Your task to perform on an android device: open a bookmark in the chrome app Image 0: 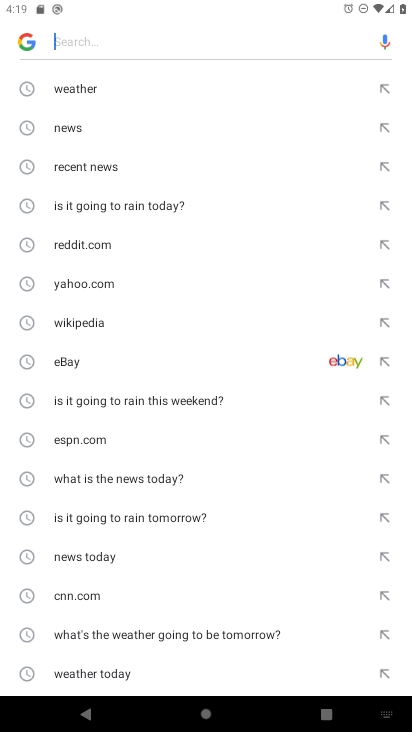
Step 0: press back button
Your task to perform on an android device: open a bookmark in the chrome app Image 1: 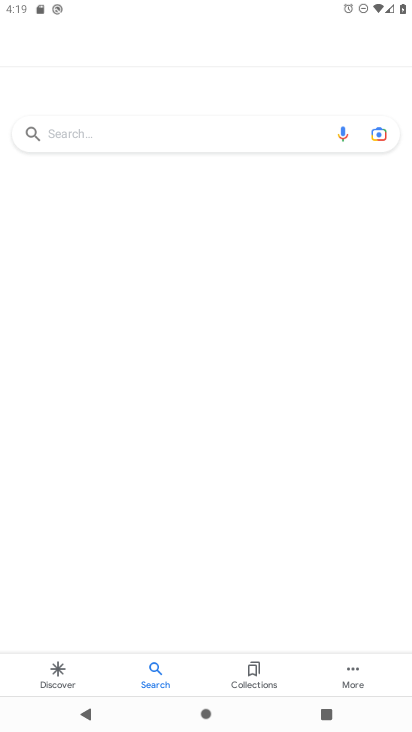
Step 1: press back button
Your task to perform on an android device: open a bookmark in the chrome app Image 2: 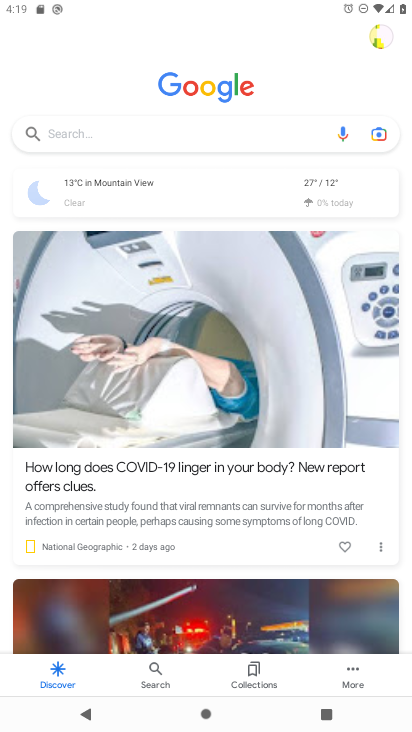
Step 2: press back button
Your task to perform on an android device: open a bookmark in the chrome app Image 3: 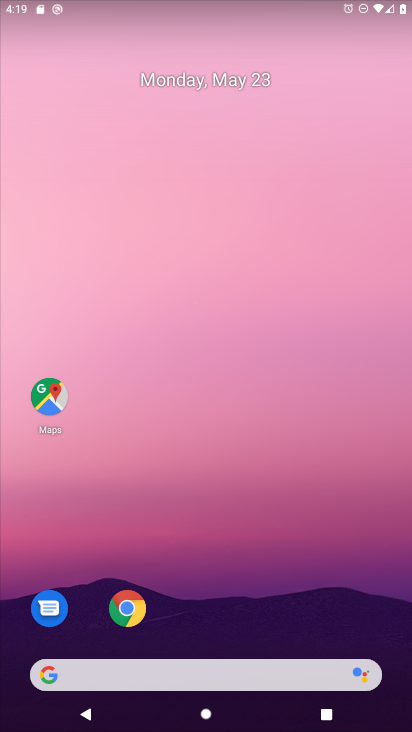
Step 3: drag from (242, 568) to (166, 107)
Your task to perform on an android device: open a bookmark in the chrome app Image 4: 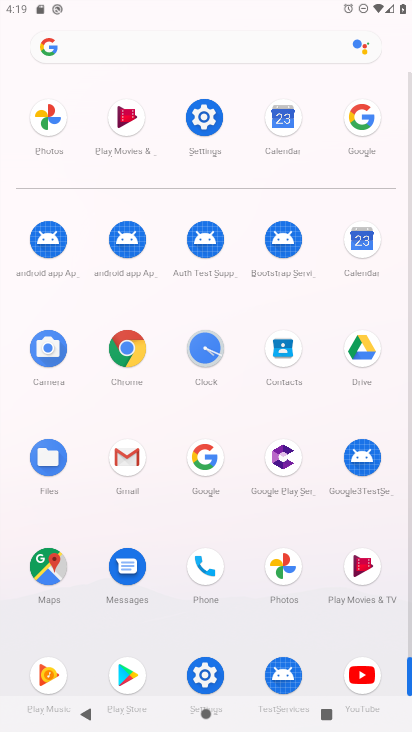
Step 4: click (129, 347)
Your task to perform on an android device: open a bookmark in the chrome app Image 5: 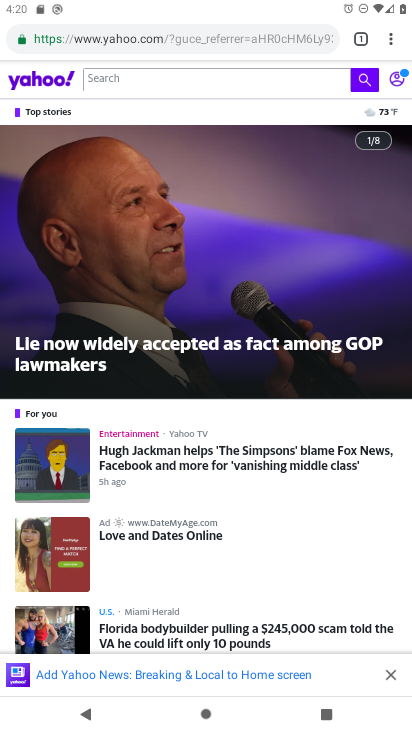
Step 5: click (391, 36)
Your task to perform on an android device: open a bookmark in the chrome app Image 6: 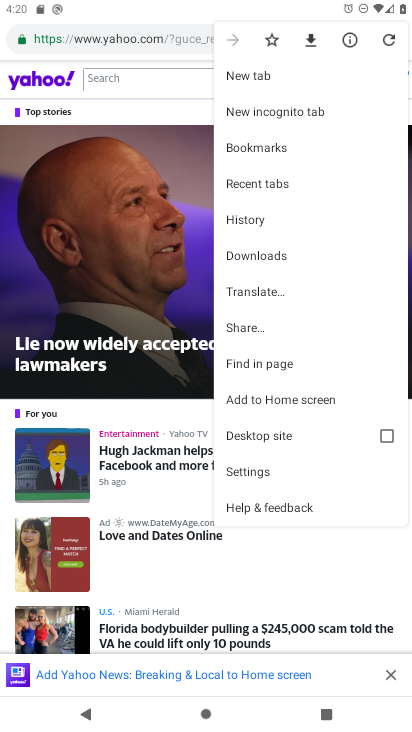
Step 6: click (276, 149)
Your task to perform on an android device: open a bookmark in the chrome app Image 7: 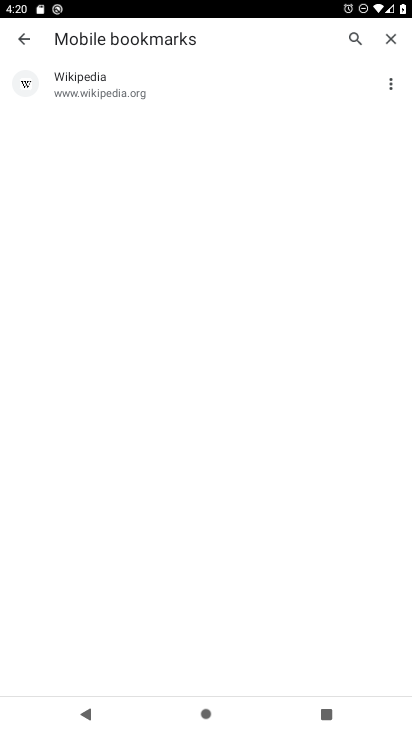
Step 7: task complete